Your task to perform on an android device: Clear all items from cart on newegg. Add logitech g pro to the cart on newegg, then select checkout. Image 0: 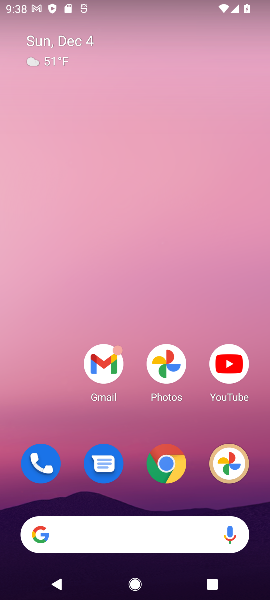
Step 0: task complete